Your task to perform on an android device: add a contact Image 0: 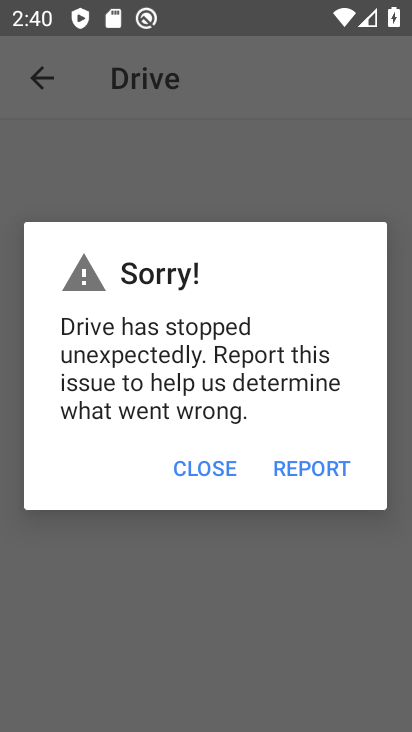
Step 0: press home button
Your task to perform on an android device: add a contact Image 1: 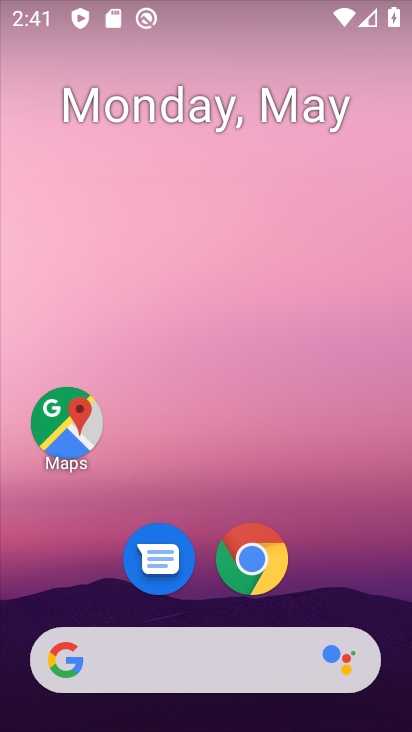
Step 1: drag from (387, 576) to (350, 204)
Your task to perform on an android device: add a contact Image 2: 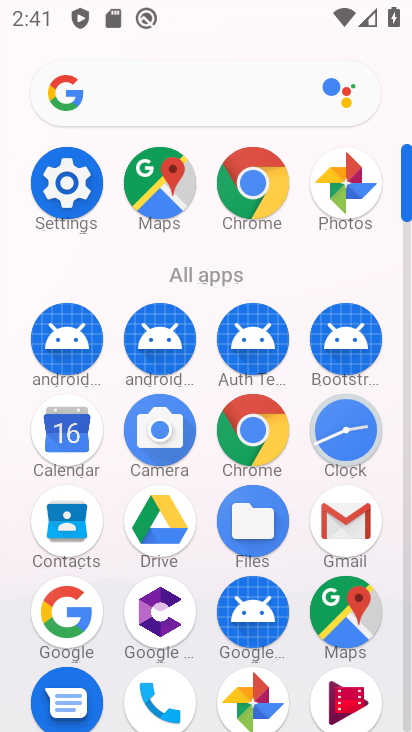
Step 2: click (78, 513)
Your task to perform on an android device: add a contact Image 3: 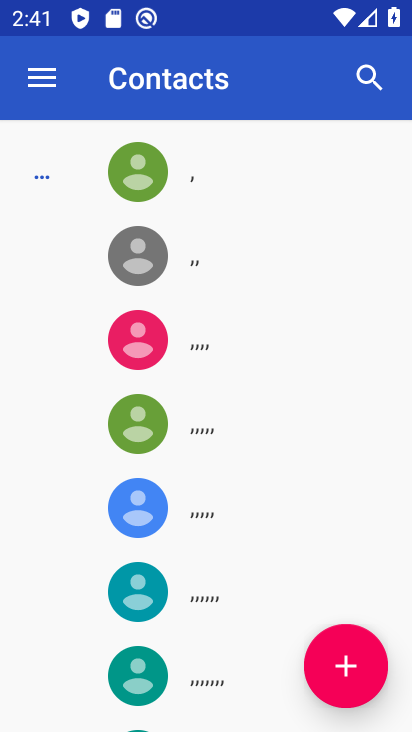
Step 3: click (360, 664)
Your task to perform on an android device: add a contact Image 4: 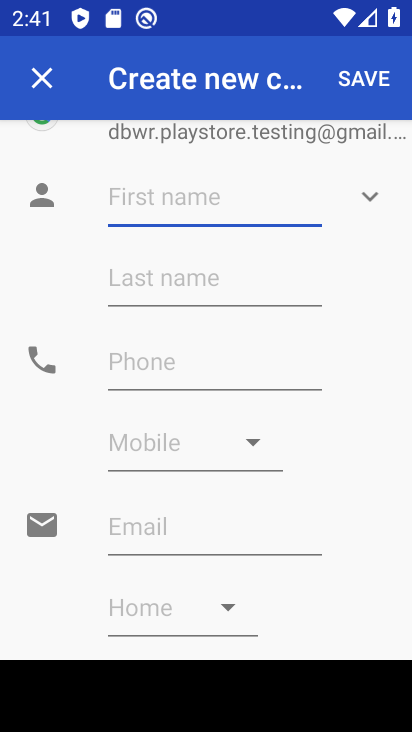
Step 4: click (215, 203)
Your task to perform on an android device: add a contact Image 5: 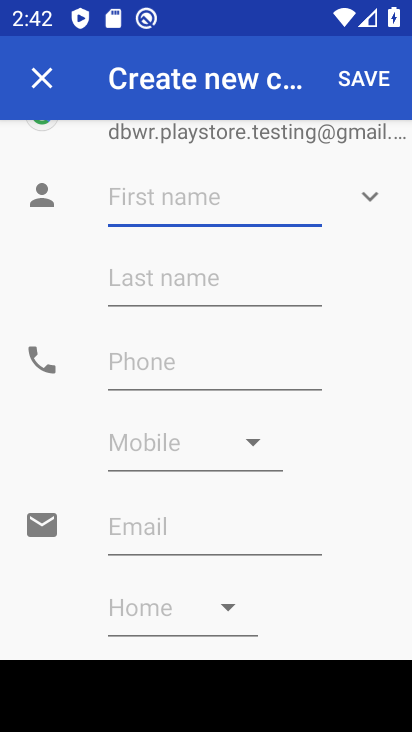
Step 5: type "jvjvjgvg"
Your task to perform on an android device: add a contact Image 6: 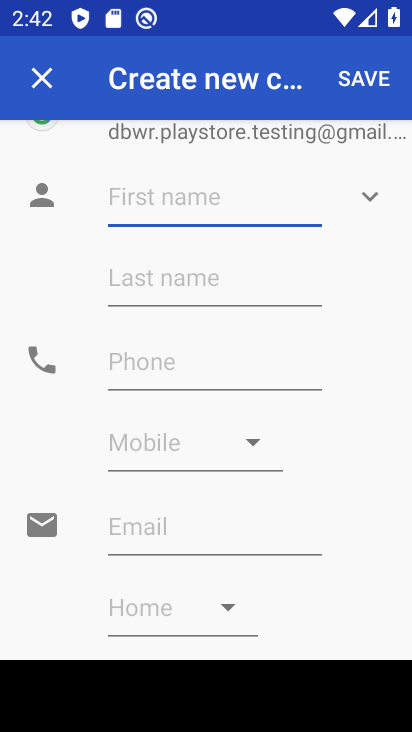
Step 6: click (180, 377)
Your task to perform on an android device: add a contact Image 7: 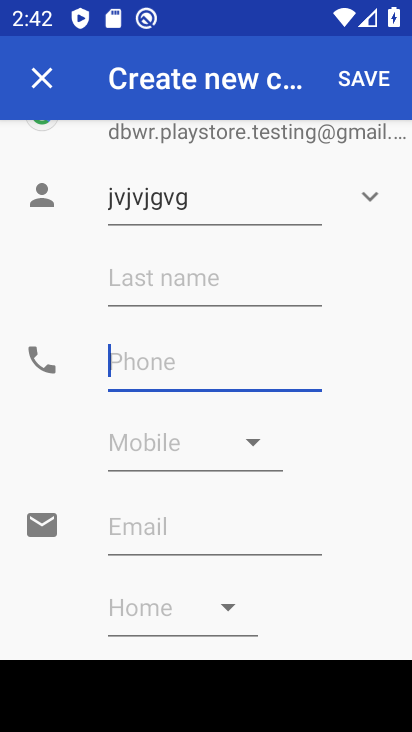
Step 7: type "9767697797"
Your task to perform on an android device: add a contact Image 8: 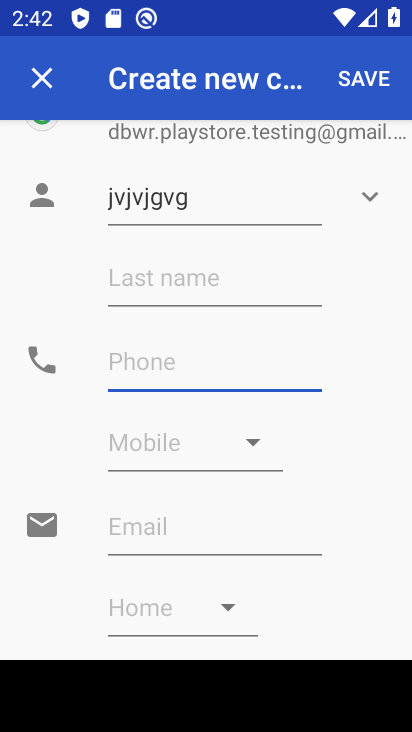
Step 8: click (385, 504)
Your task to perform on an android device: add a contact Image 9: 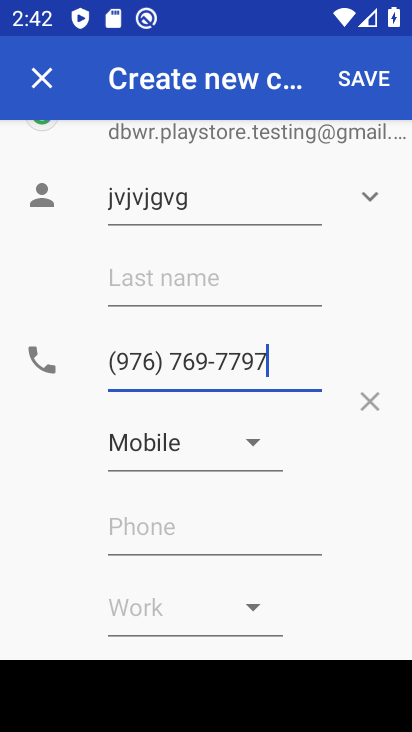
Step 9: click (364, 72)
Your task to perform on an android device: add a contact Image 10: 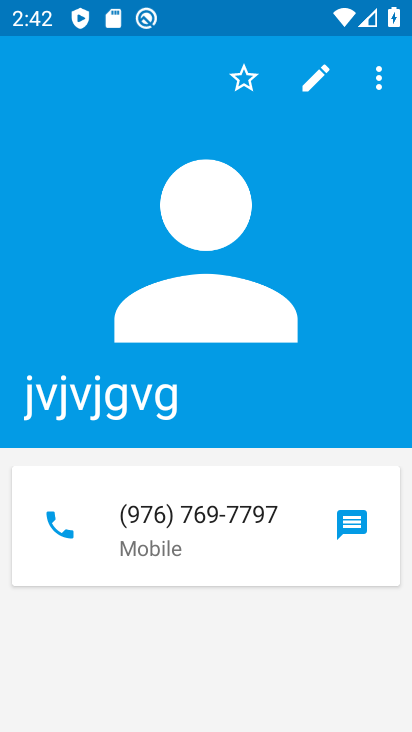
Step 10: task complete